Your task to perform on an android device: manage bookmarks in the chrome app Image 0: 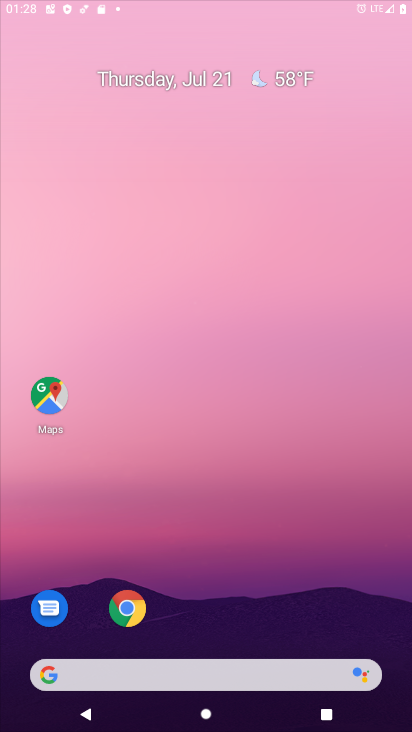
Step 0: press home button
Your task to perform on an android device: manage bookmarks in the chrome app Image 1: 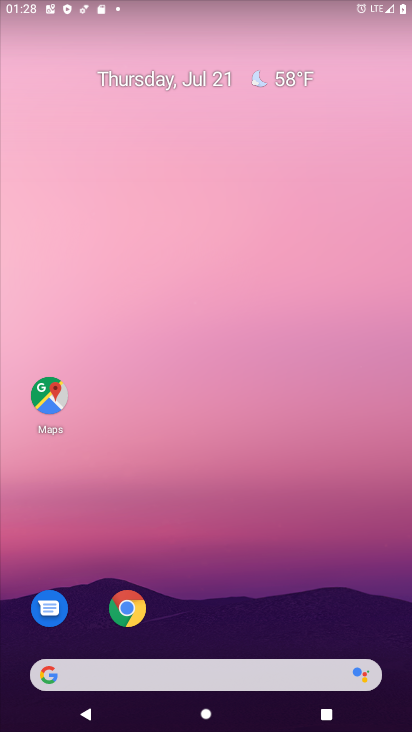
Step 1: click (124, 605)
Your task to perform on an android device: manage bookmarks in the chrome app Image 2: 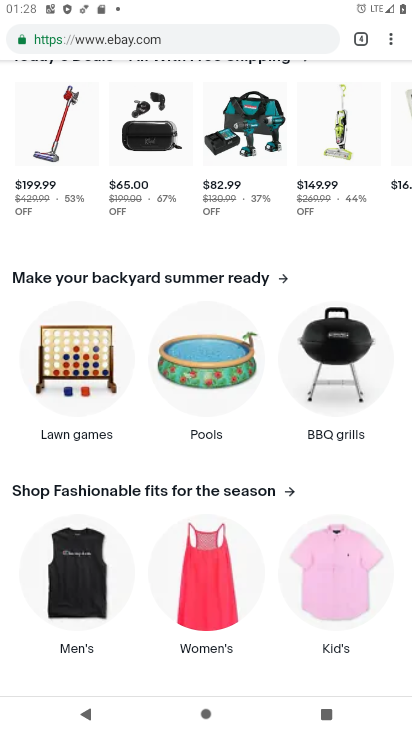
Step 2: click (393, 32)
Your task to perform on an android device: manage bookmarks in the chrome app Image 3: 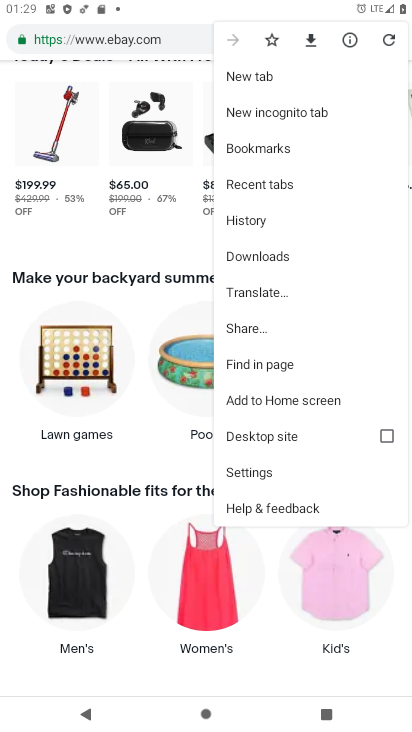
Step 3: click (291, 145)
Your task to perform on an android device: manage bookmarks in the chrome app Image 4: 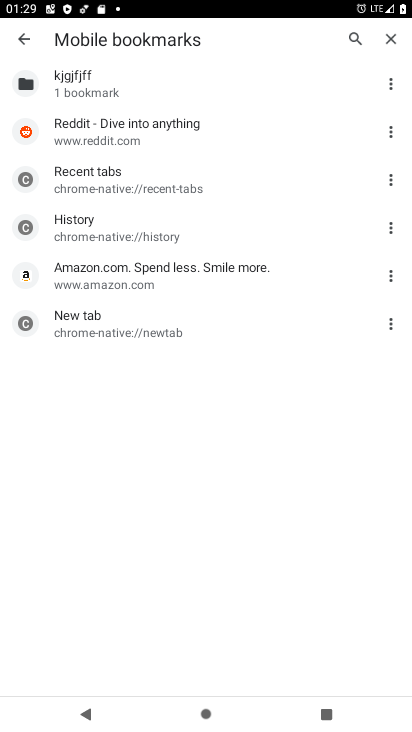
Step 4: click (391, 323)
Your task to perform on an android device: manage bookmarks in the chrome app Image 5: 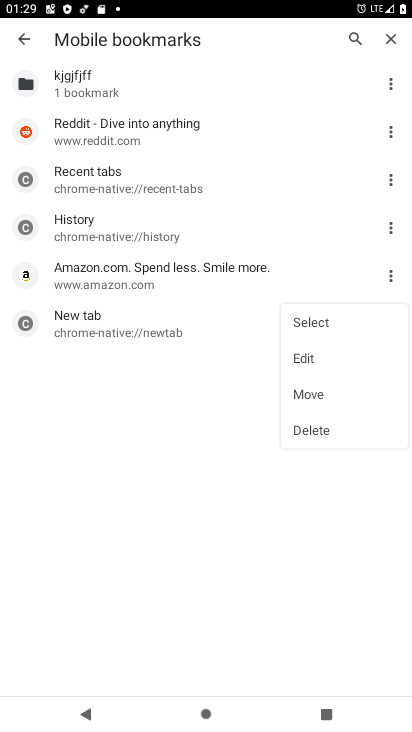
Step 5: click (324, 435)
Your task to perform on an android device: manage bookmarks in the chrome app Image 6: 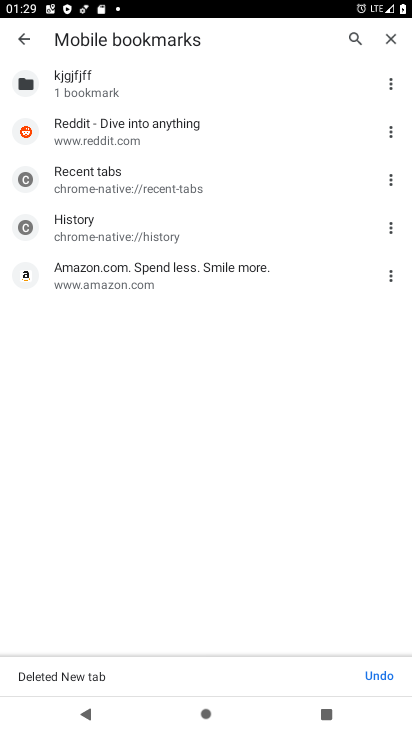
Step 6: task complete